Your task to perform on an android device: Go to Amazon Image 0: 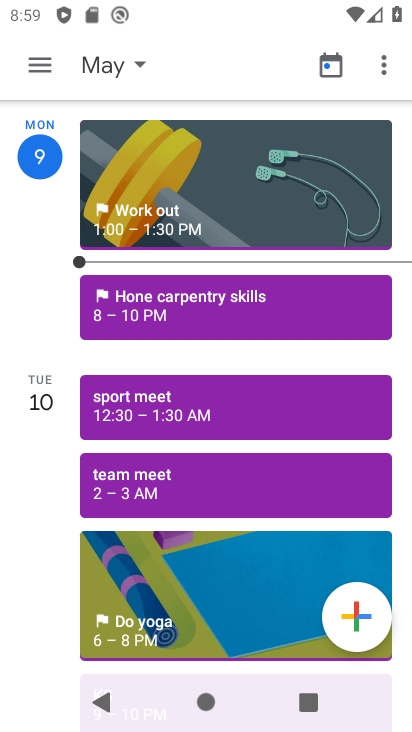
Step 0: press home button
Your task to perform on an android device: Go to Amazon Image 1: 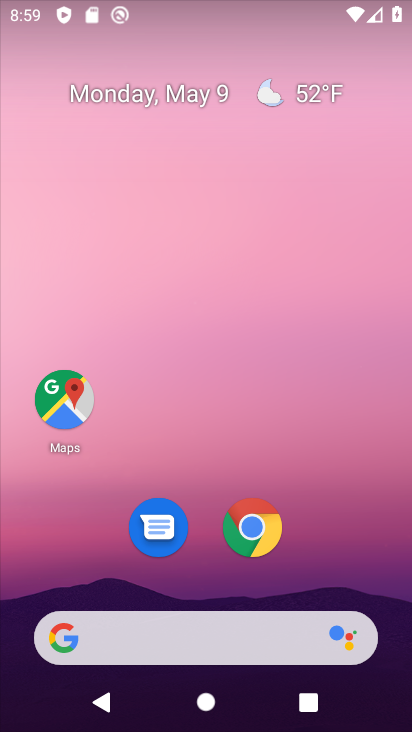
Step 1: drag from (370, 547) to (323, 79)
Your task to perform on an android device: Go to Amazon Image 2: 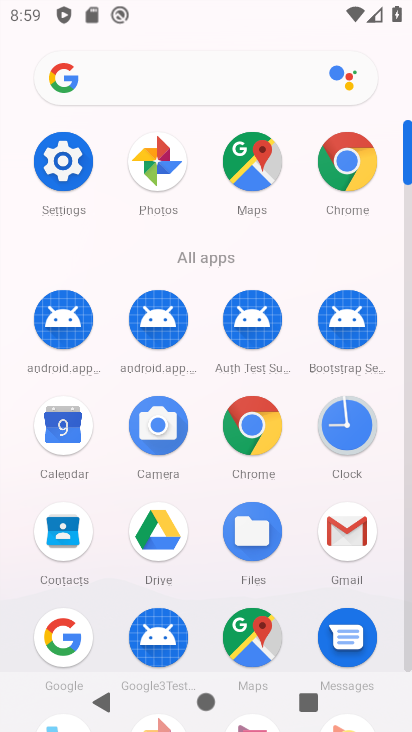
Step 2: drag from (291, 561) to (292, 207)
Your task to perform on an android device: Go to Amazon Image 3: 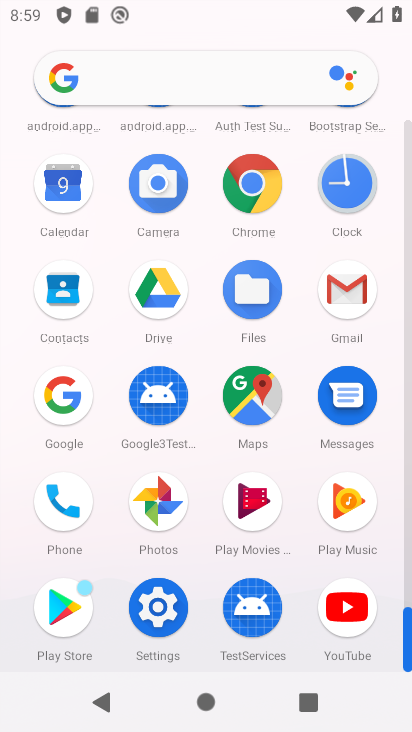
Step 3: click (240, 185)
Your task to perform on an android device: Go to Amazon Image 4: 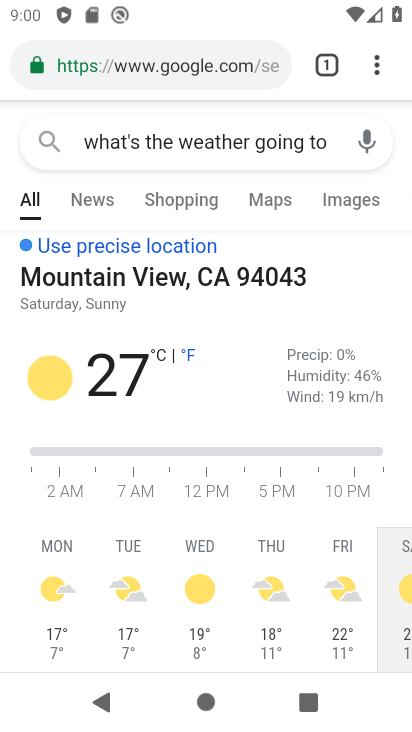
Step 4: click (343, 67)
Your task to perform on an android device: Go to Amazon Image 5: 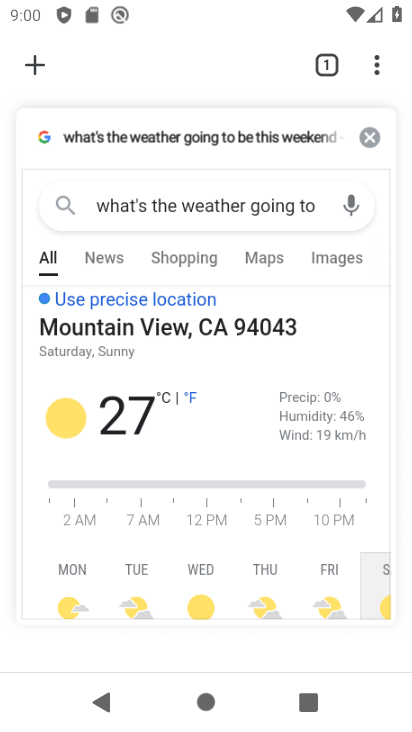
Step 5: click (23, 74)
Your task to perform on an android device: Go to Amazon Image 6: 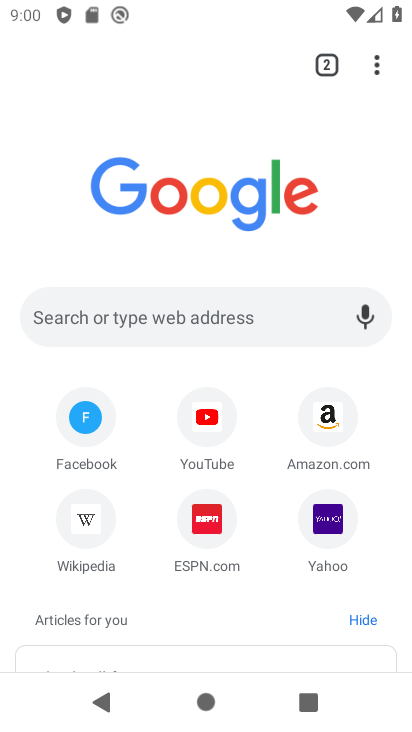
Step 6: click (338, 415)
Your task to perform on an android device: Go to Amazon Image 7: 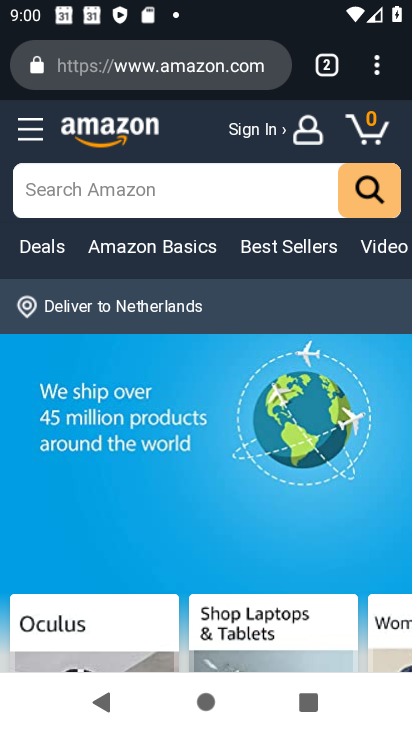
Step 7: task complete